Your task to perform on an android device: Show me popular videos on Youtube Image 0: 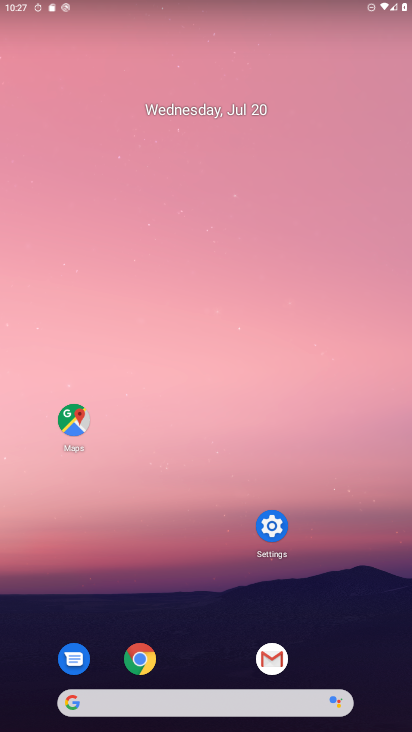
Step 0: drag from (286, 718) to (247, 91)
Your task to perform on an android device: Show me popular videos on Youtube Image 1: 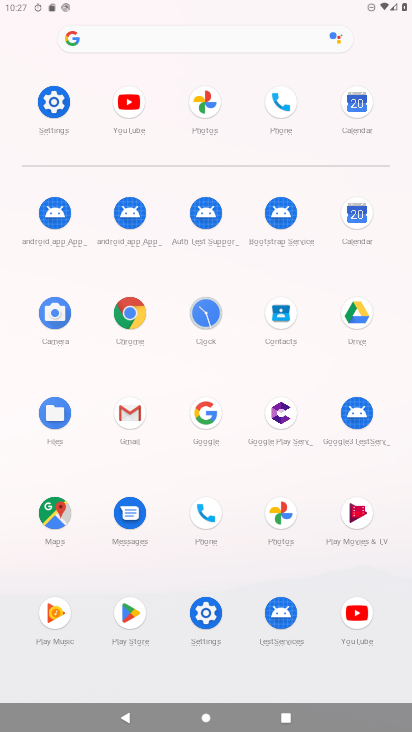
Step 1: click (352, 612)
Your task to perform on an android device: Show me popular videos on Youtube Image 2: 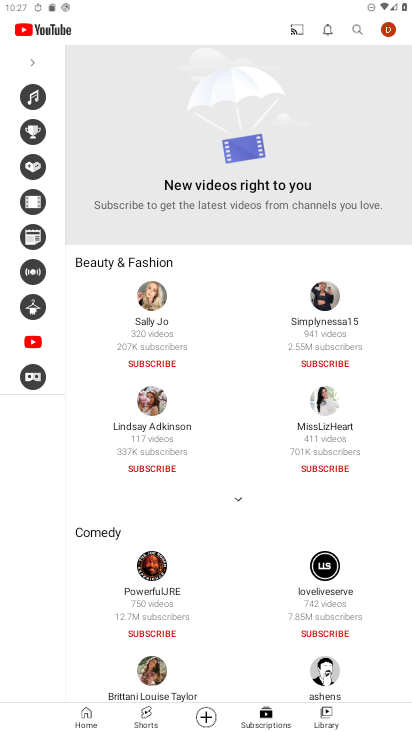
Step 2: click (358, 32)
Your task to perform on an android device: Show me popular videos on Youtube Image 3: 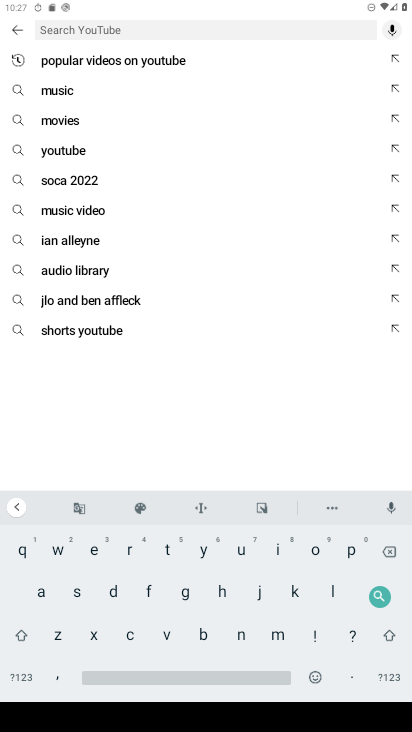
Step 3: click (126, 60)
Your task to perform on an android device: Show me popular videos on Youtube Image 4: 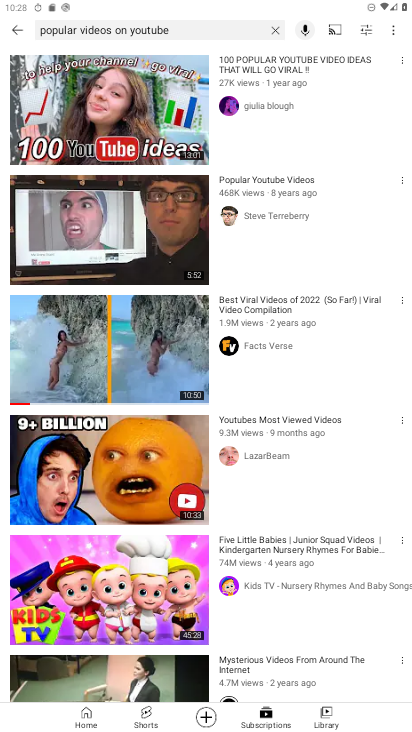
Step 4: task complete